Your task to perform on an android device: turn off picture-in-picture Image 0: 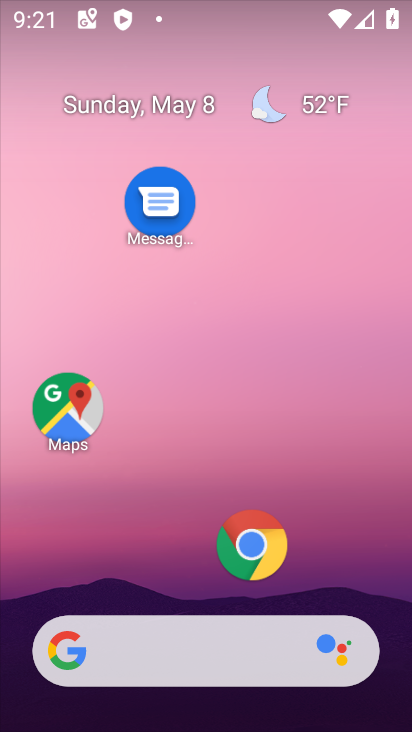
Step 0: drag from (199, 613) to (278, 7)
Your task to perform on an android device: turn off picture-in-picture Image 1: 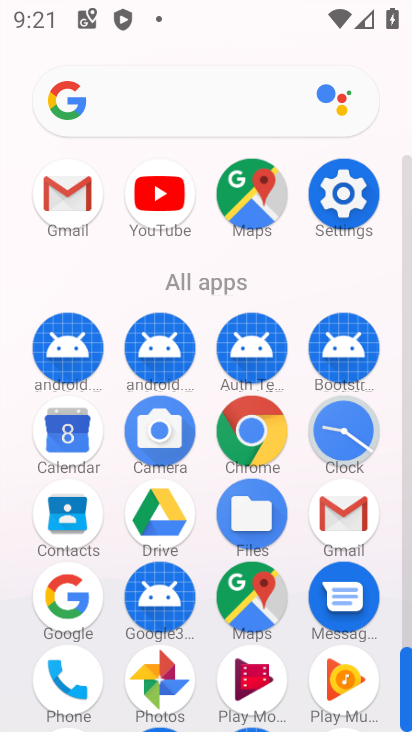
Step 1: click (346, 219)
Your task to perform on an android device: turn off picture-in-picture Image 2: 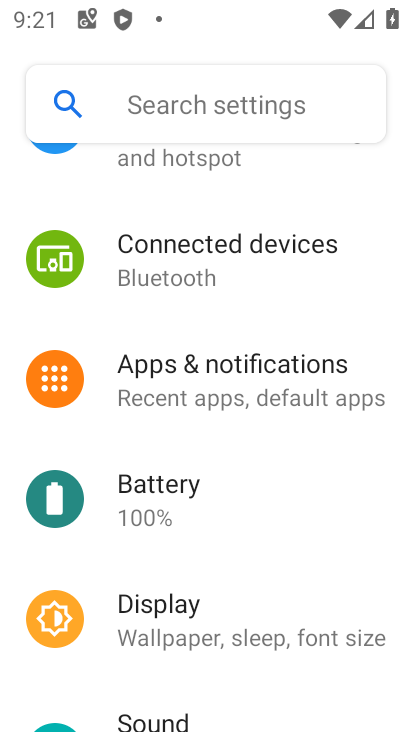
Step 2: drag from (211, 561) to (148, 107)
Your task to perform on an android device: turn off picture-in-picture Image 3: 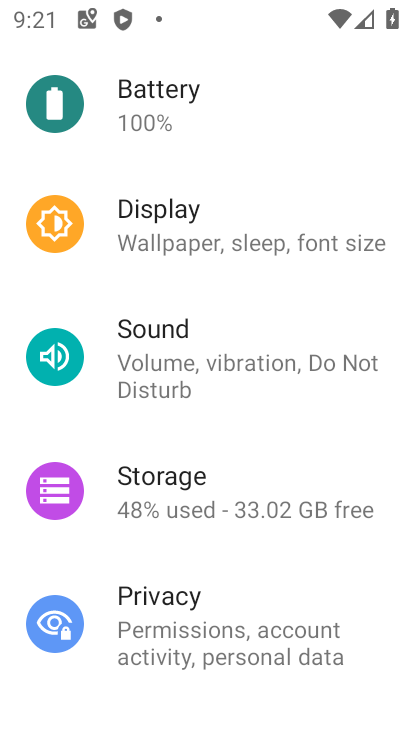
Step 3: drag from (256, 546) to (248, 94)
Your task to perform on an android device: turn off picture-in-picture Image 4: 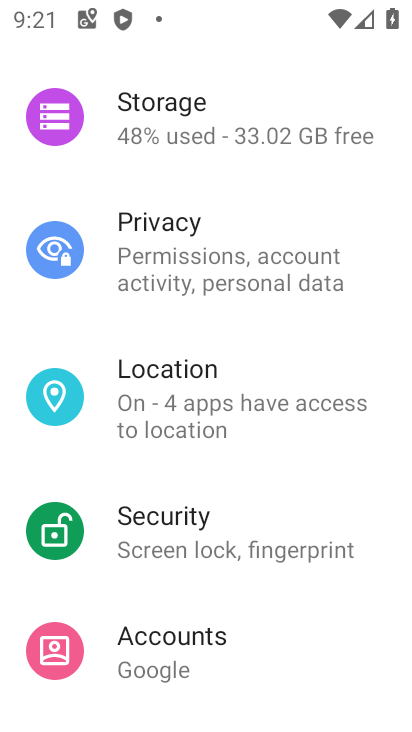
Step 4: drag from (189, 636) to (168, 198)
Your task to perform on an android device: turn off picture-in-picture Image 5: 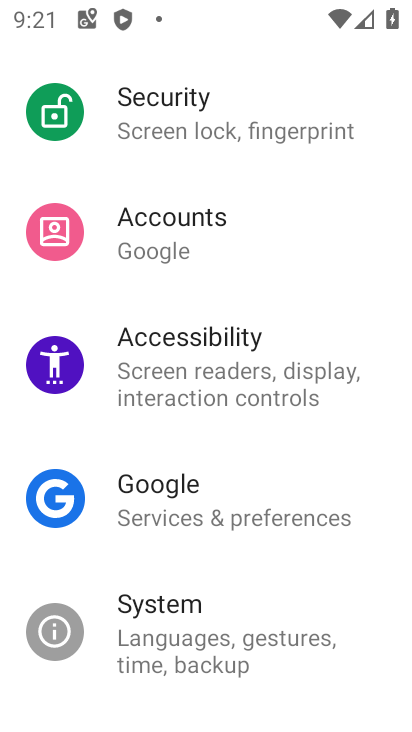
Step 5: click (180, 609)
Your task to perform on an android device: turn off picture-in-picture Image 6: 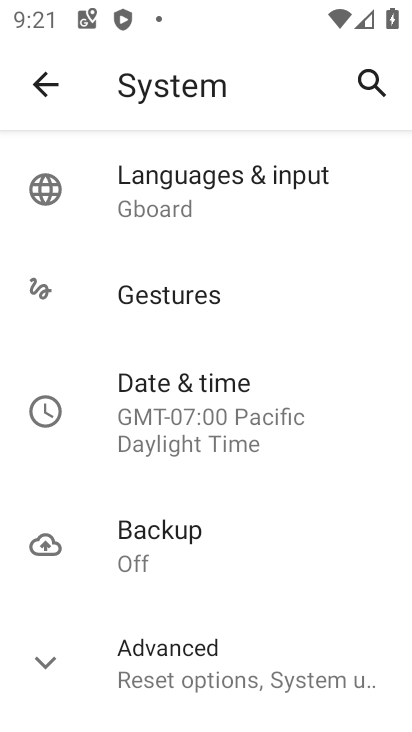
Step 6: click (181, 647)
Your task to perform on an android device: turn off picture-in-picture Image 7: 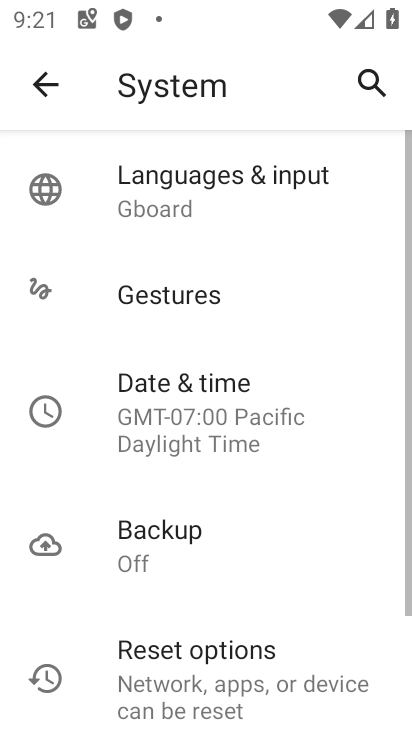
Step 7: drag from (166, 646) to (179, 39)
Your task to perform on an android device: turn off picture-in-picture Image 8: 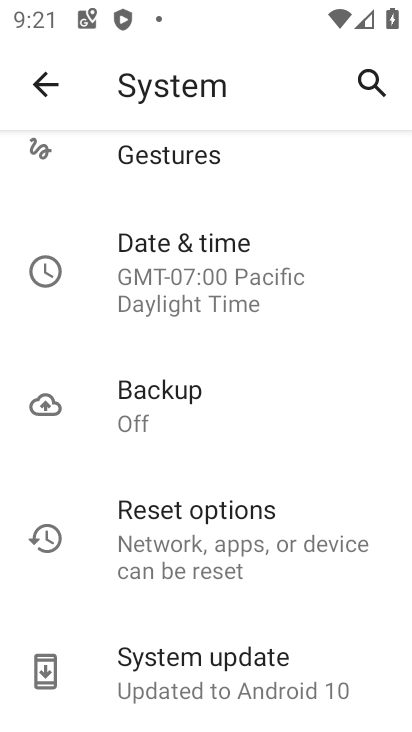
Step 8: click (47, 106)
Your task to perform on an android device: turn off picture-in-picture Image 9: 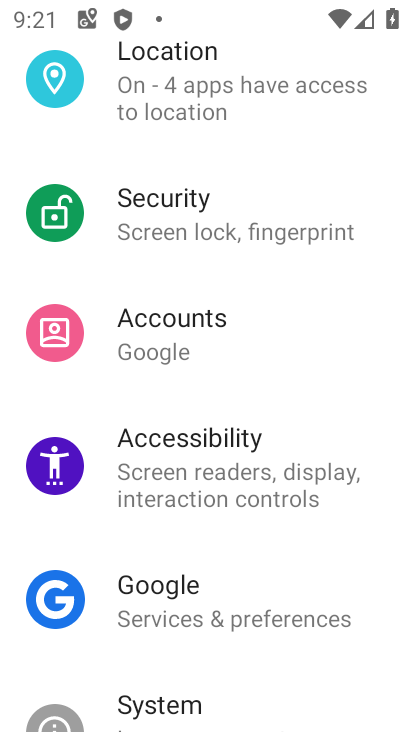
Step 9: drag from (213, 590) to (172, 119)
Your task to perform on an android device: turn off picture-in-picture Image 10: 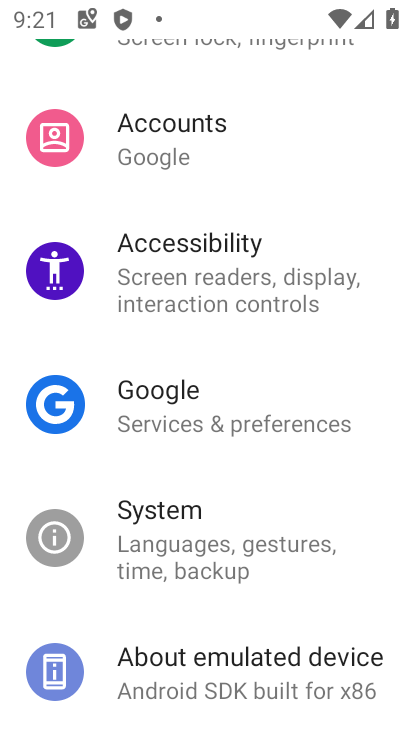
Step 10: drag from (196, 110) to (162, 663)
Your task to perform on an android device: turn off picture-in-picture Image 11: 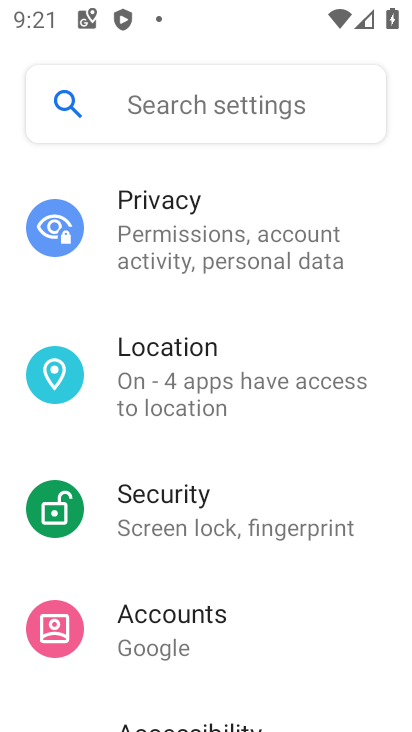
Step 11: click (175, 379)
Your task to perform on an android device: turn off picture-in-picture Image 12: 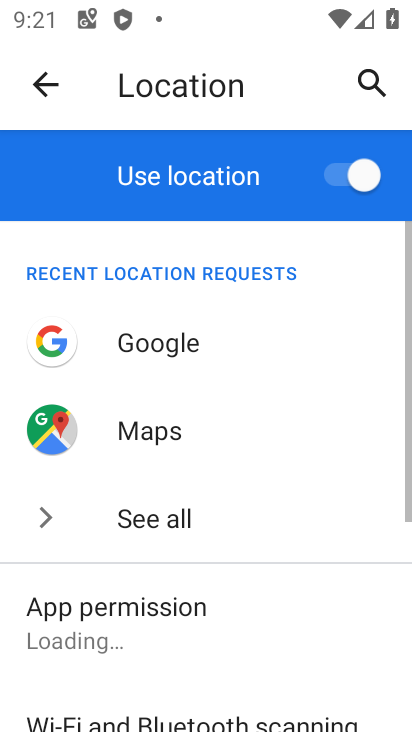
Step 12: drag from (202, 613) to (178, 295)
Your task to perform on an android device: turn off picture-in-picture Image 13: 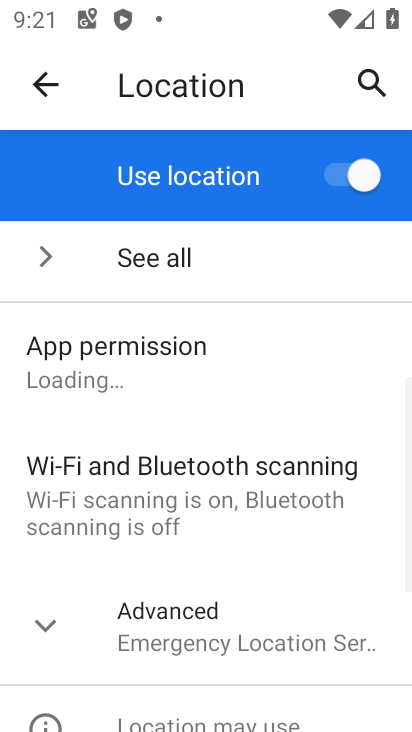
Step 13: click (43, 87)
Your task to perform on an android device: turn off picture-in-picture Image 14: 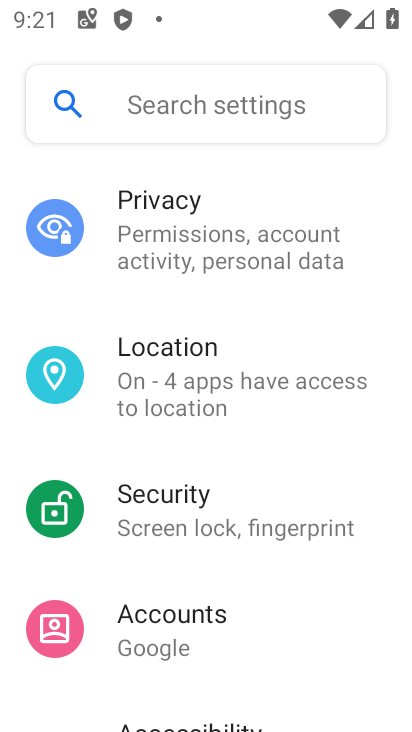
Step 14: drag from (129, 234) to (81, 651)
Your task to perform on an android device: turn off picture-in-picture Image 15: 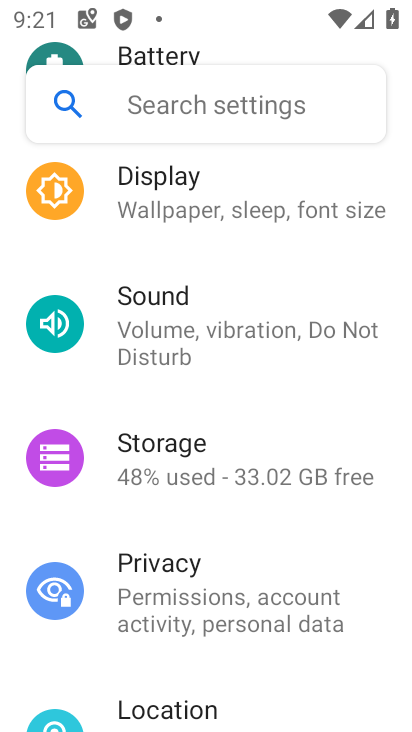
Step 15: click (187, 213)
Your task to perform on an android device: turn off picture-in-picture Image 16: 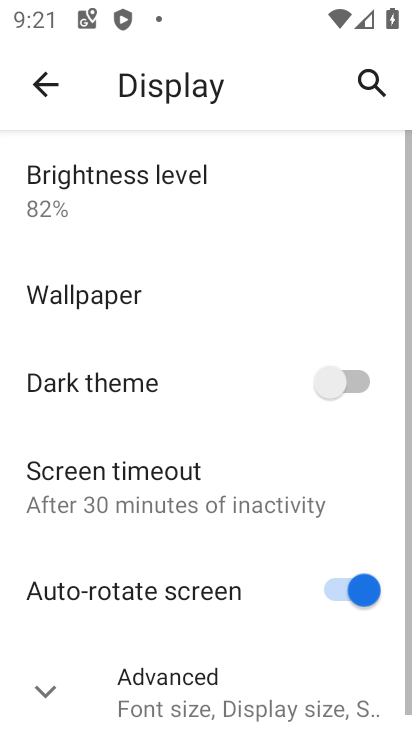
Step 16: task complete